Your task to perform on an android device: stop showing notifications on the lock screen Image 0: 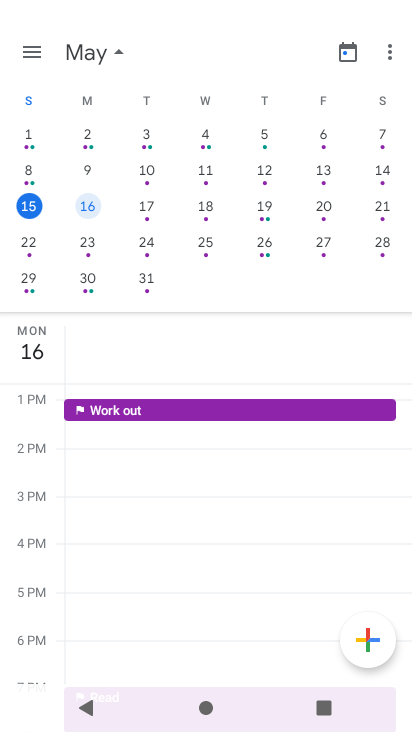
Step 0: press home button
Your task to perform on an android device: stop showing notifications on the lock screen Image 1: 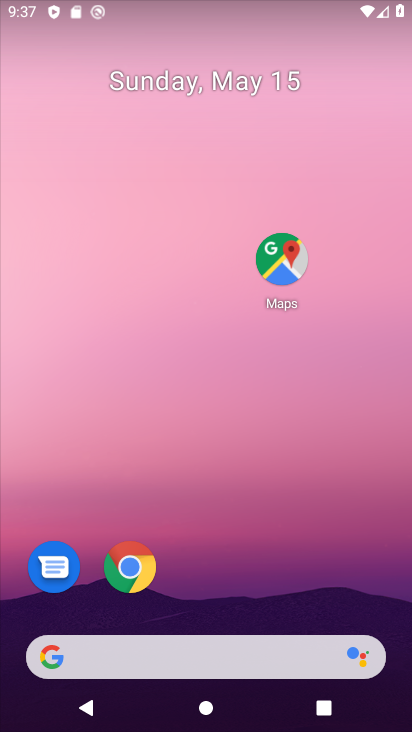
Step 1: drag from (232, 538) to (222, 117)
Your task to perform on an android device: stop showing notifications on the lock screen Image 2: 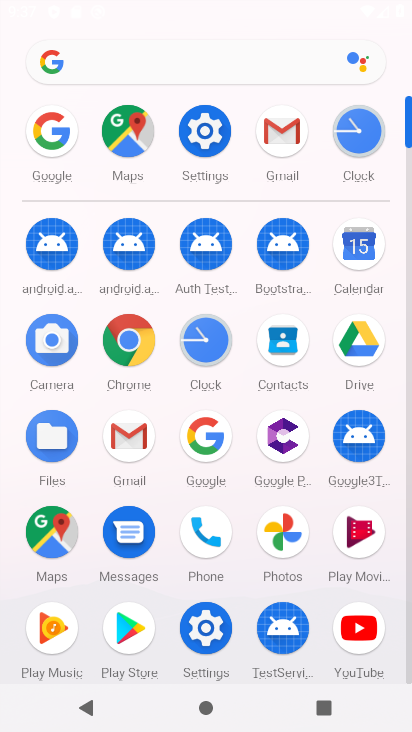
Step 2: click (202, 126)
Your task to perform on an android device: stop showing notifications on the lock screen Image 3: 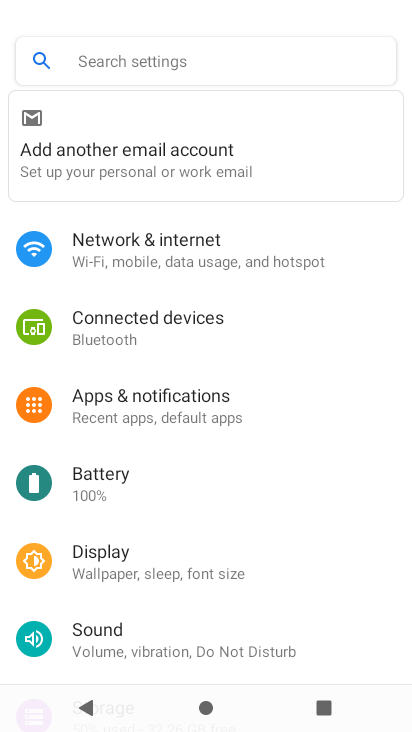
Step 3: click (189, 402)
Your task to perform on an android device: stop showing notifications on the lock screen Image 4: 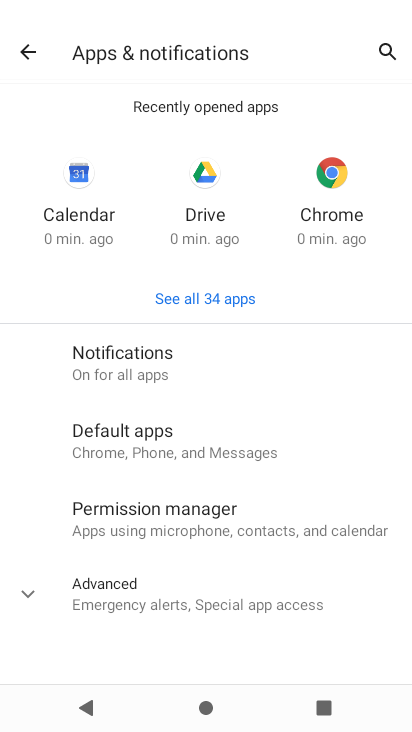
Step 4: click (147, 357)
Your task to perform on an android device: stop showing notifications on the lock screen Image 5: 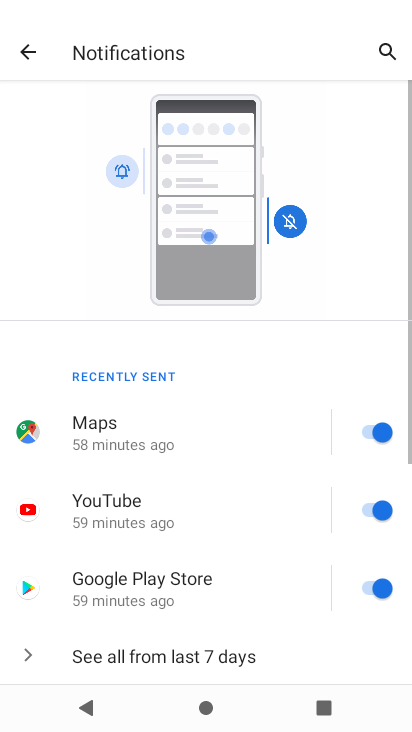
Step 5: drag from (230, 550) to (224, 110)
Your task to perform on an android device: stop showing notifications on the lock screen Image 6: 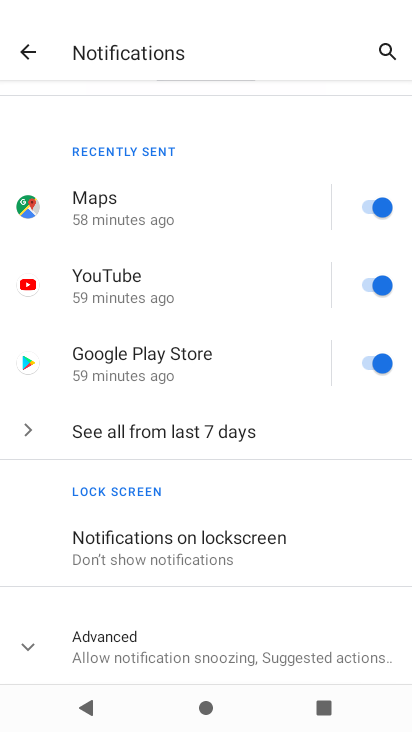
Step 6: click (218, 546)
Your task to perform on an android device: stop showing notifications on the lock screen Image 7: 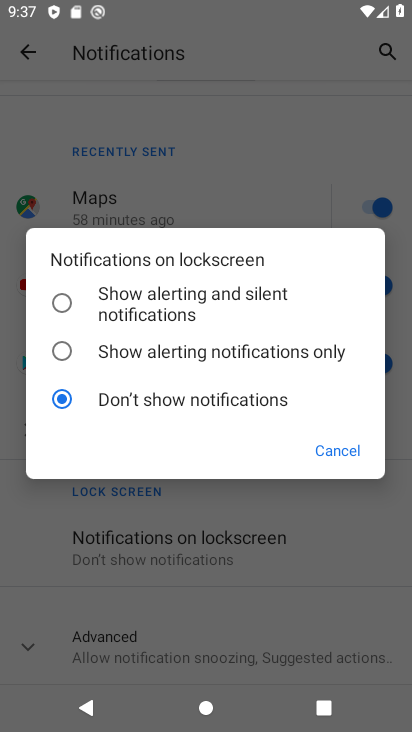
Step 7: task complete